Your task to perform on an android device: visit the assistant section in the google photos Image 0: 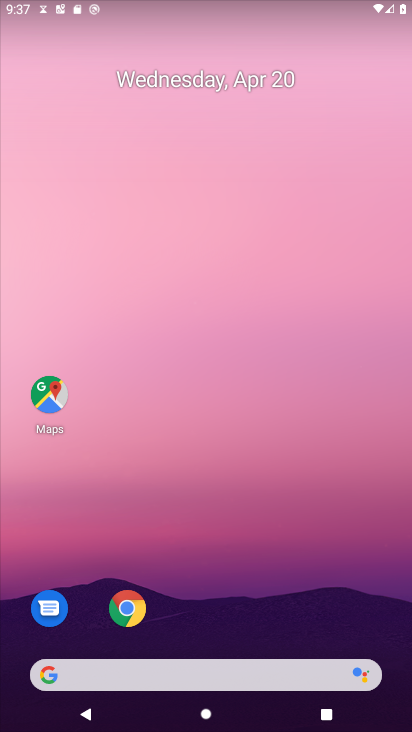
Step 0: drag from (182, 564) to (181, 140)
Your task to perform on an android device: visit the assistant section in the google photos Image 1: 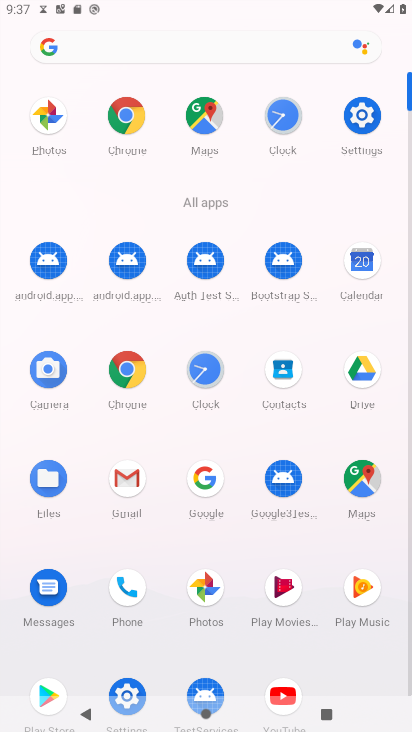
Step 1: click (202, 593)
Your task to perform on an android device: visit the assistant section in the google photos Image 2: 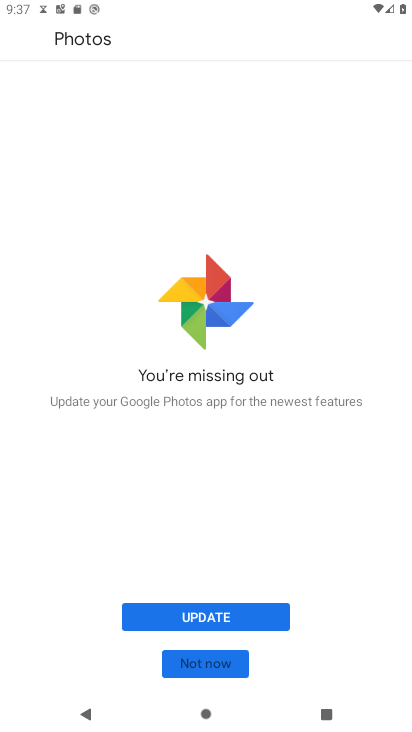
Step 2: click (226, 621)
Your task to perform on an android device: visit the assistant section in the google photos Image 3: 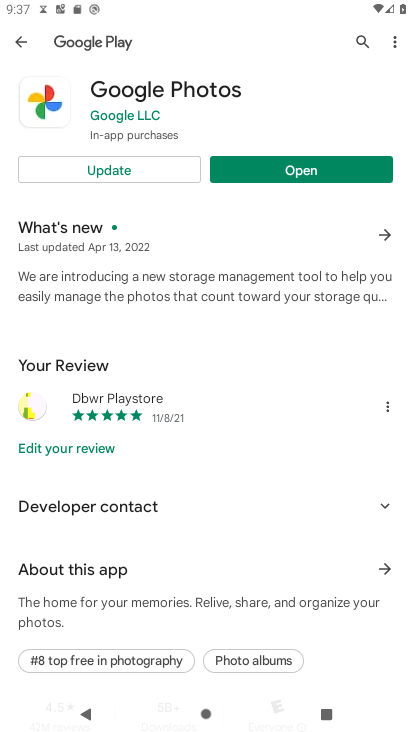
Step 3: click (151, 171)
Your task to perform on an android device: visit the assistant section in the google photos Image 4: 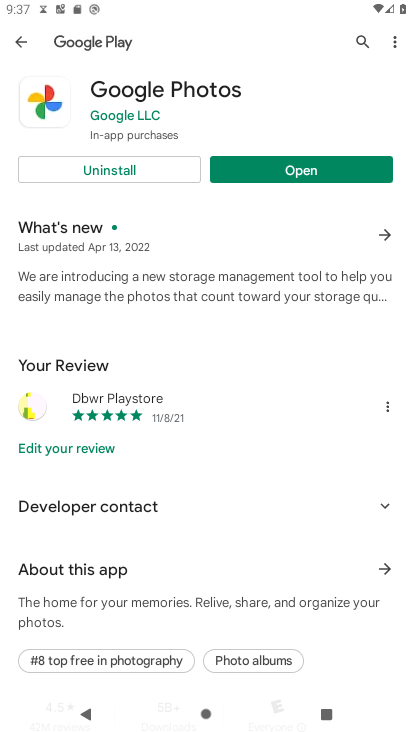
Step 4: click (293, 170)
Your task to perform on an android device: visit the assistant section in the google photos Image 5: 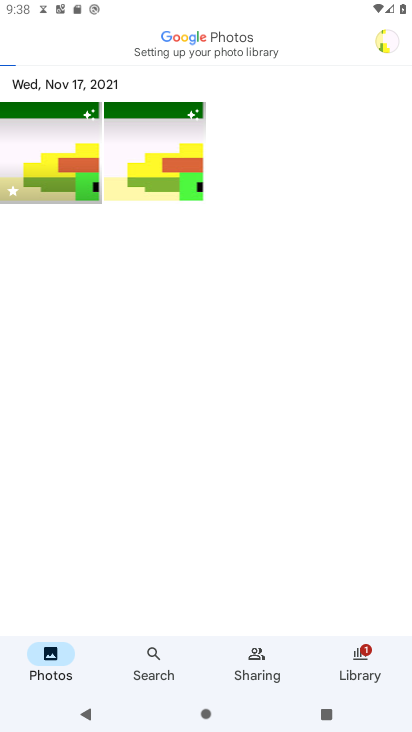
Step 5: task complete